Your task to perform on an android device: Go to Wikipedia Image 0: 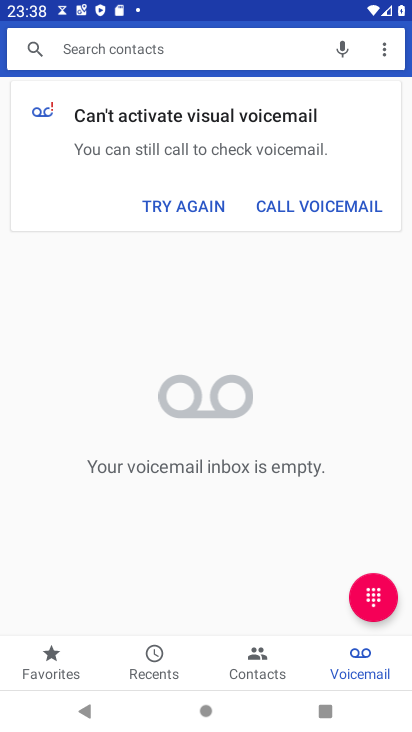
Step 0: press home button
Your task to perform on an android device: Go to Wikipedia Image 1: 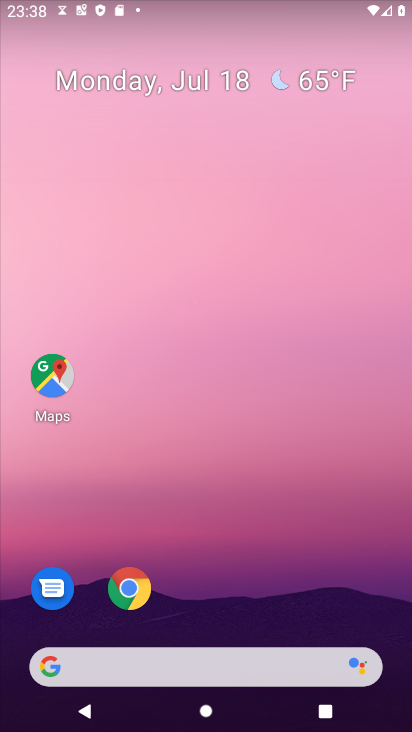
Step 1: click (46, 668)
Your task to perform on an android device: Go to Wikipedia Image 2: 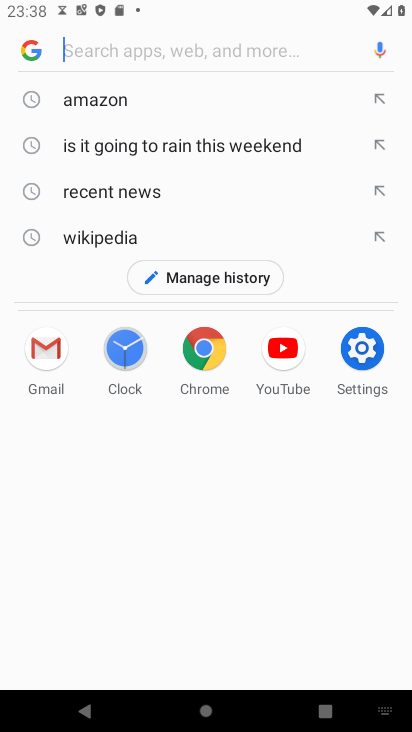
Step 2: click (71, 237)
Your task to perform on an android device: Go to Wikipedia Image 3: 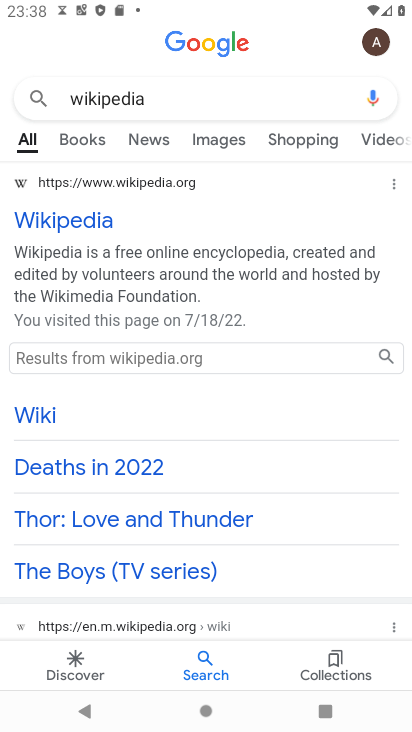
Step 3: click (64, 223)
Your task to perform on an android device: Go to Wikipedia Image 4: 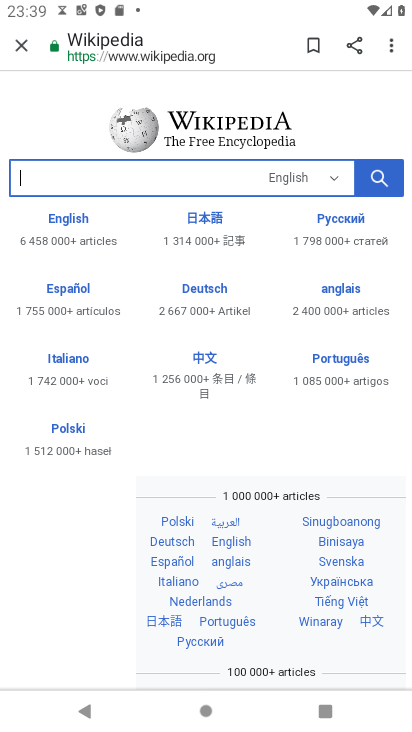
Step 4: task complete